Your task to perform on an android device: Go to CNN.com Image 0: 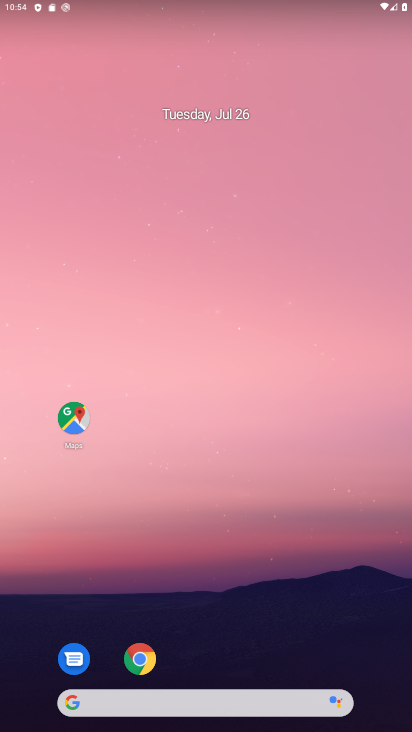
Step 0: click (141, 659)
Your task to perform on an android device: Go to CNN.com Image 1: 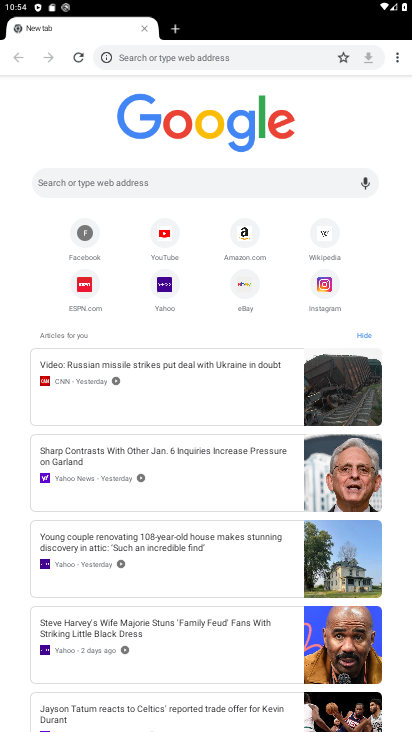
Step 1: click (187, 181)
Your task to perform on an android device: Go to CNN.com Image 2: 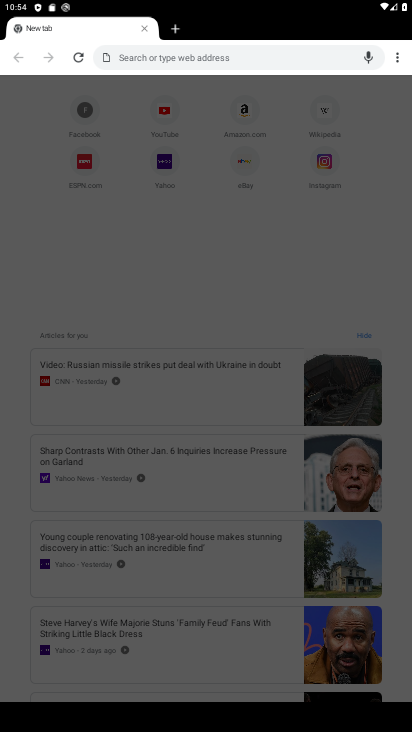
Step 2: type "CNN.com"
Your task to perform on an android device: Go to CNN.com Image 3: 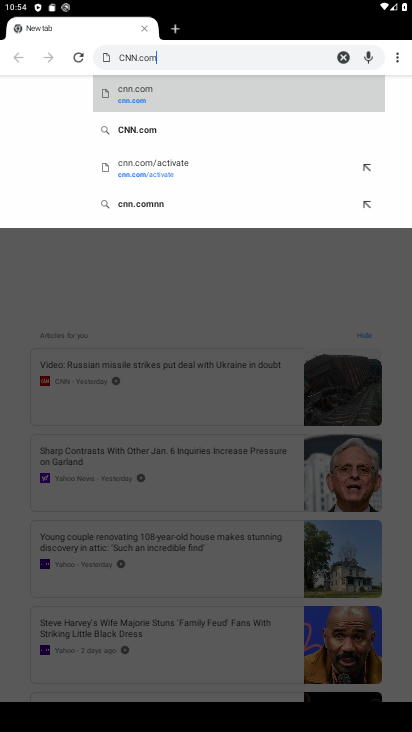
Step 3: click (135, 129)
Your task to perform on an android device: Go to CNN.com Image 4: 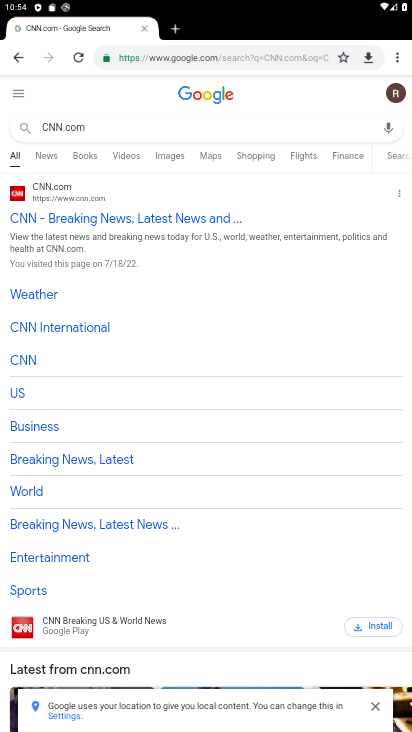
Step 4: click (127, 215)
Your task to perform on an android device: Go to CNN.com Image 5: 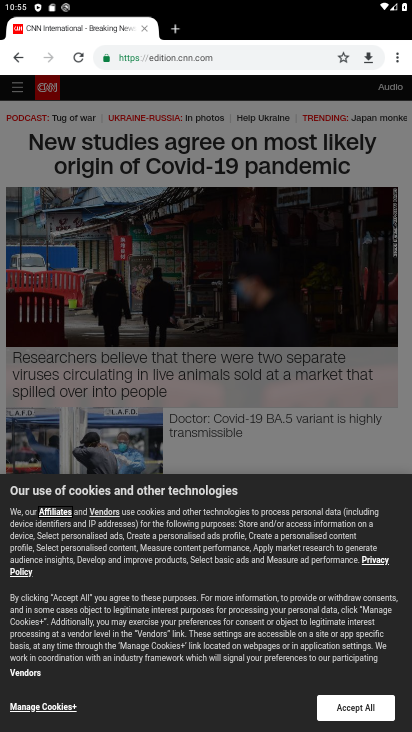
Step 5: click (354, 708)
Your task to perform on an android device: Go to CNN.com Image 6: 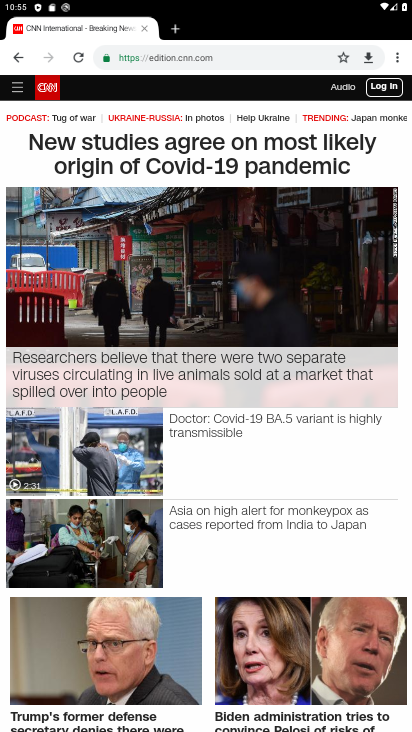
Step 6: task complete